Your task to perform on an android device: Open CNN.com Image 0: 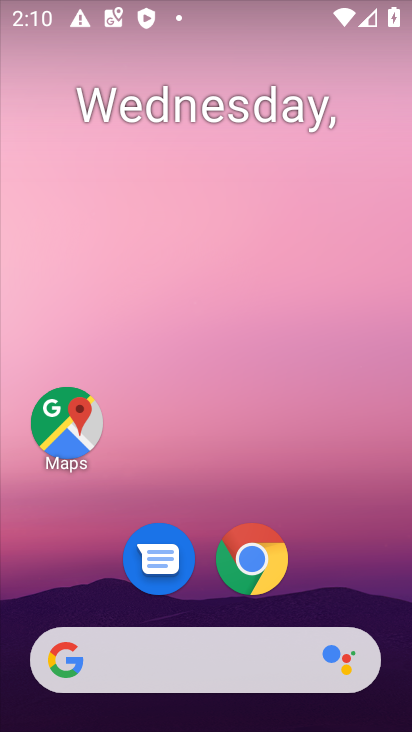
Step 0: click (252, 557)
Your task to perform on an android device: Open CNN.com Image 1: 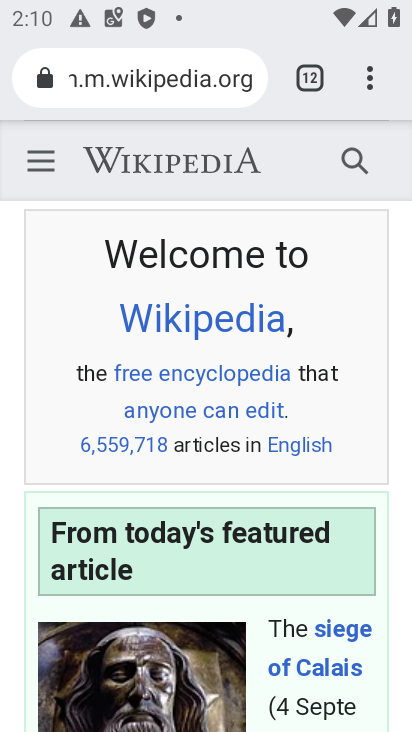
Step 1: click (369, 85)
Your task to perform on an android device: Open CNN.com Image 2: 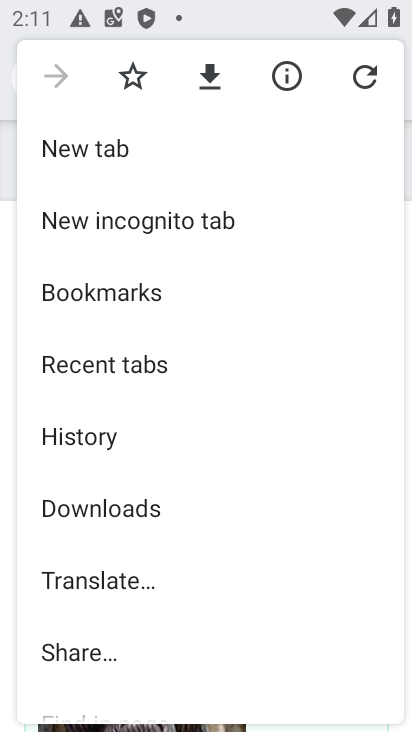
Step 2: click (92, 148)
Your task to perform on an android device: Open CNN.com Image 3: 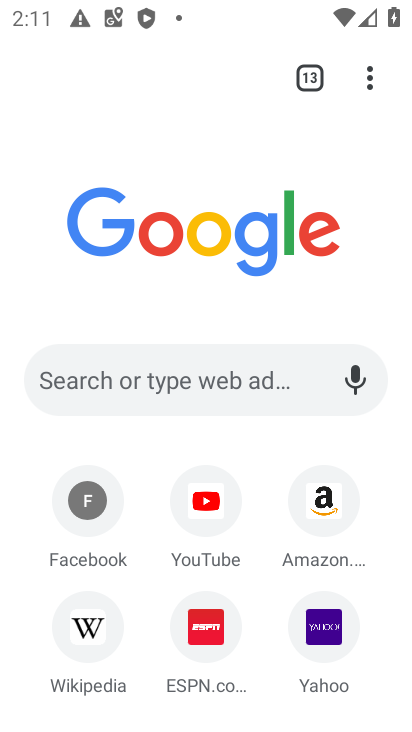
Step 3: click (200, 387)
Your task to perform on an android device: Open CNN.com Image 4: 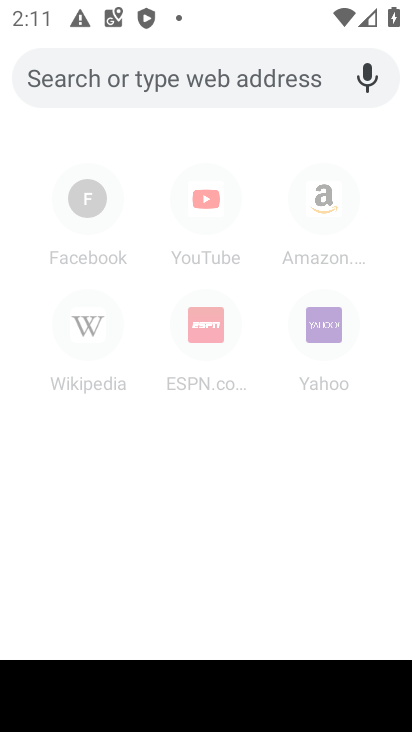
Step 4: type "CNN.com"
Your task to perform on an android device: Open CNN.com Image 5: 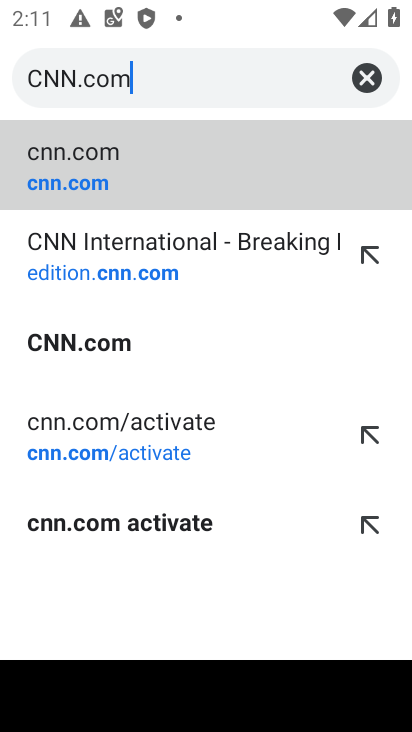
Step 5: click (64, 138)
Your task to perform on an android device: Open CNN.com Image 6: 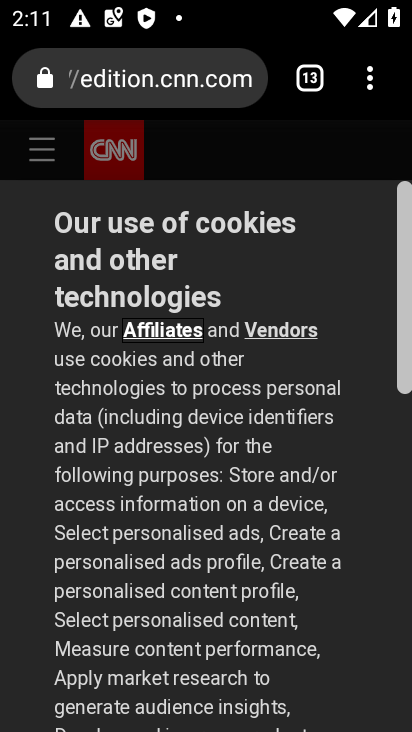
Step 6: task complete